Your task to perform on an android device: make emails show in primary in the gmail app Image 0: 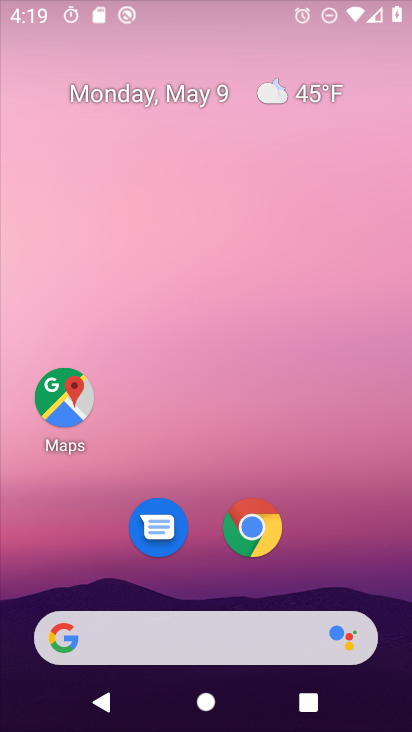
Step 0: drag from (361, 527) to (384, 199)
Your task to perform on an android device: make emails show in primary in the gmail app Image 1: 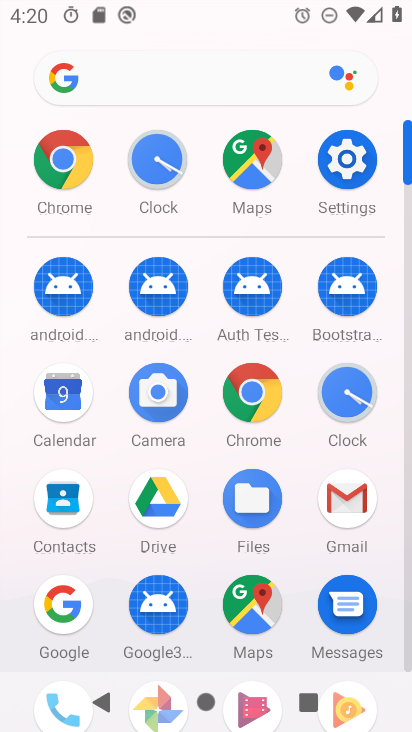
Step 1: click (356, 516)
Your task to perform on an android device: make emails show in primary in the gmail app Image 2: 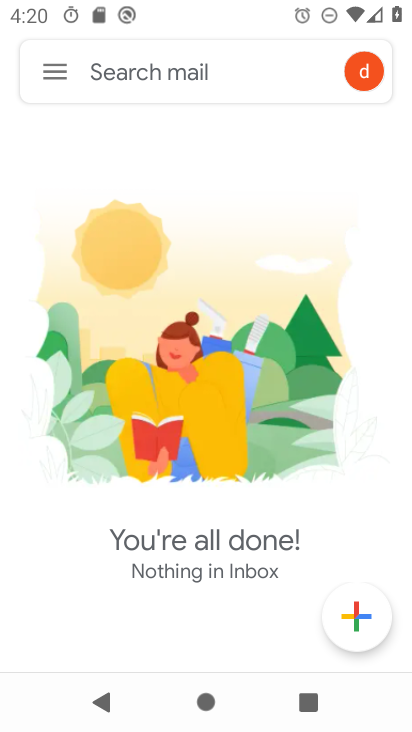
Step 2: click (54, 67)
Your task to perform on an android device: make emails show in primary in the gmail app Image 3: 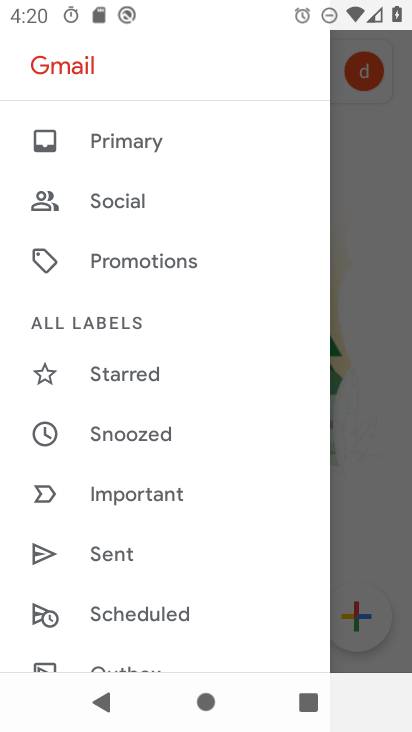
Step 3: drag from (194, 628) to (222, 222)
Your task to perform on an android device: make emails show in primary in the gmail app Image 4: 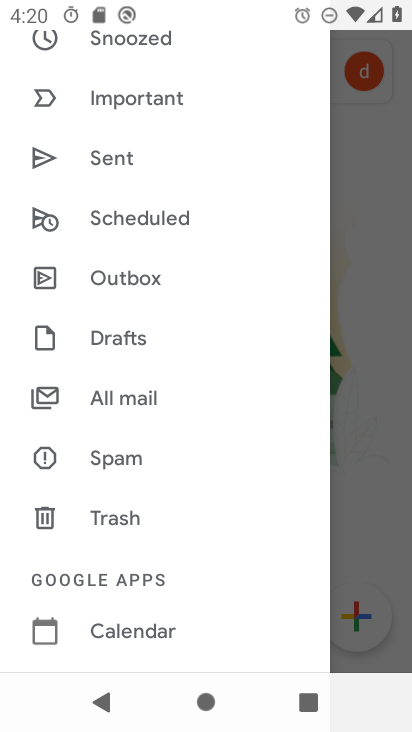
Step 4: drag from (209, 646) to (212, 224)
Your task to perform on an android device: make emails show in primary in the gmail app Image 5: 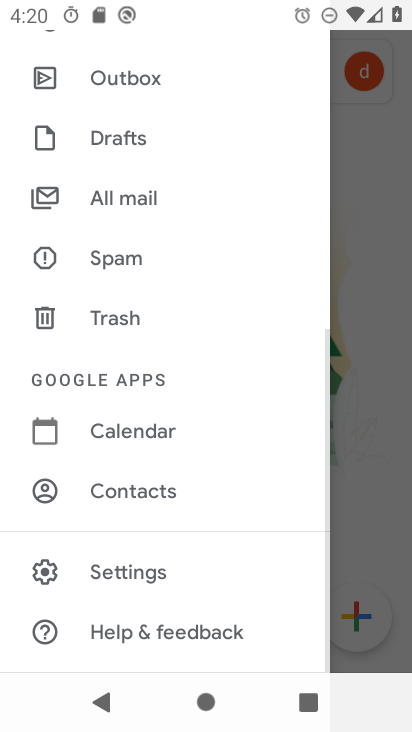
Step 5: click (207, 565)
Your task to perform on an android device: make emails show in primary in the gmail app Image 6: 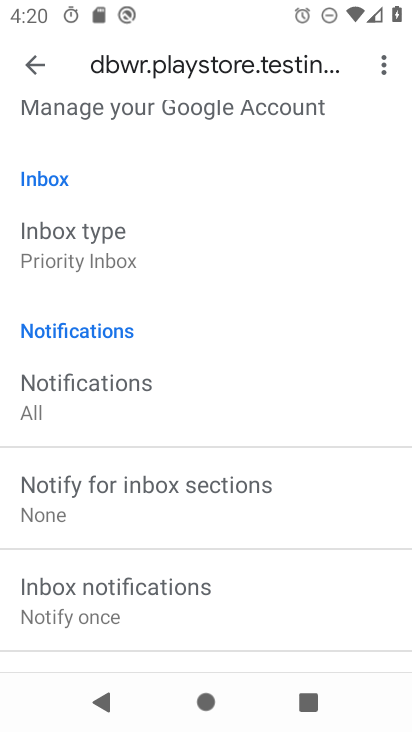
Step 6: click (214, 263)
Your task to perform on an android device: make emails show in primary in the gmail app Image 7: 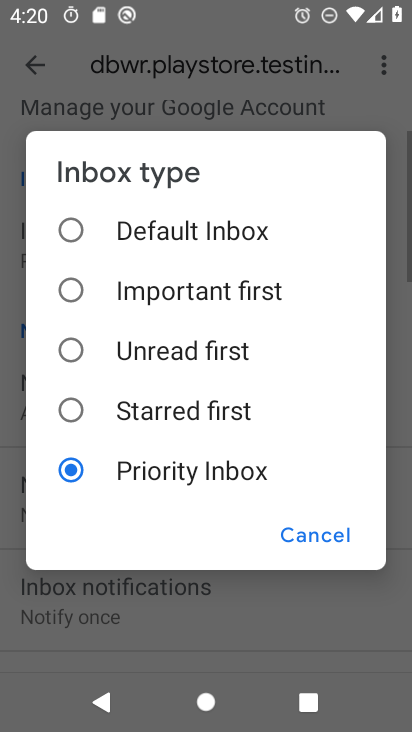
Step 7: click (210, 219)
Your task to perform on an android device: make emails show in primary in the gmail app Image 8: 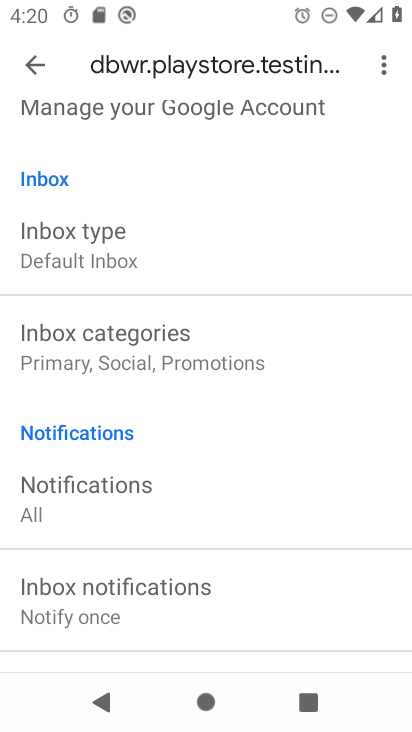
Step 8: task complete